Your task to perform on an android device: Open the calendar app, open the side menu, and click the "Day" option Image 0: 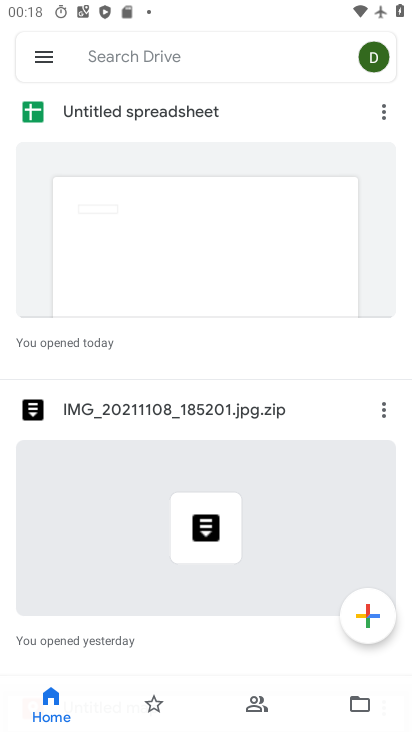
Step 0: press home button
Your task to perform on an android device: Open the calendar app, open the side menu, and click the "Day" option Image 1: 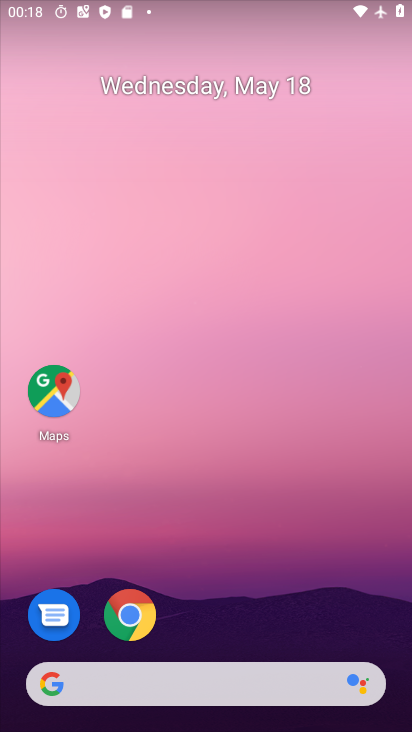
Step 1: drag from (207, 618) to (239, 150)
Your task to perform on an android device: Open the calendar app, open the side menu, and click the "Day" option Image 2: 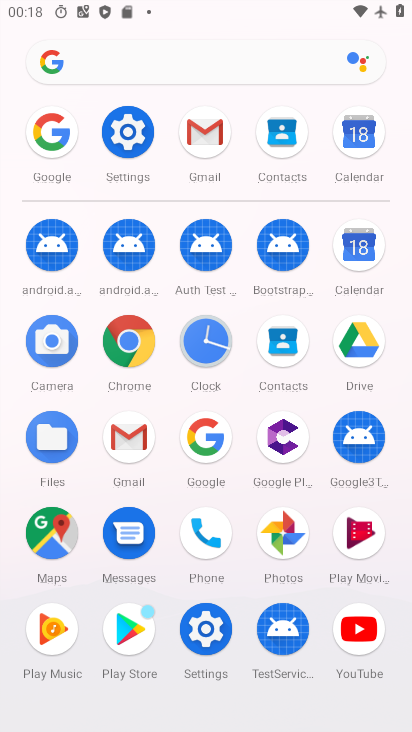
Step 2: click (340, 158)
Your task to perform on an android device: Open the calendar app, open the side menu, and click the "Day" option Image 3: 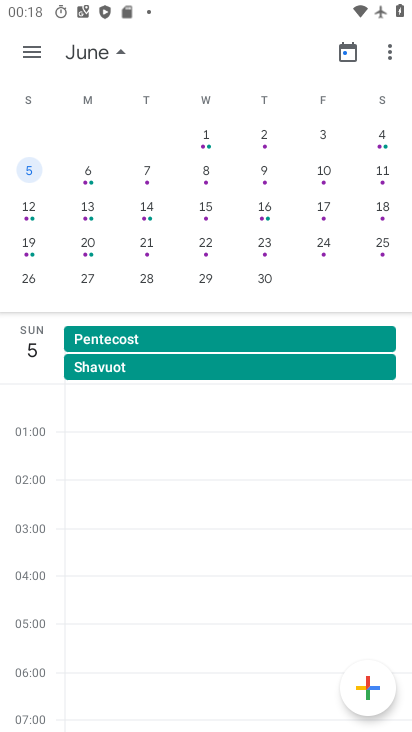
Step 3: click (25, 56)
Your task to perform on an android device: Open the calendar app, open the side menu, and click the "Day" option Image 4: 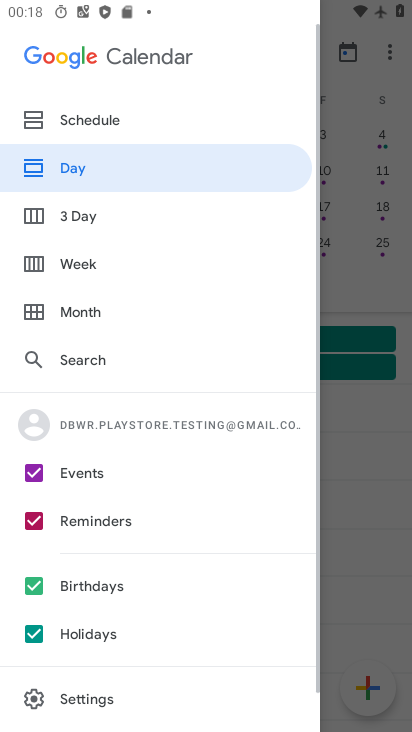
Step 4: click (119, 165)
Your task to perform on an android device: Open the calendar app, open the side menu, and click the "Day" option Image 5: 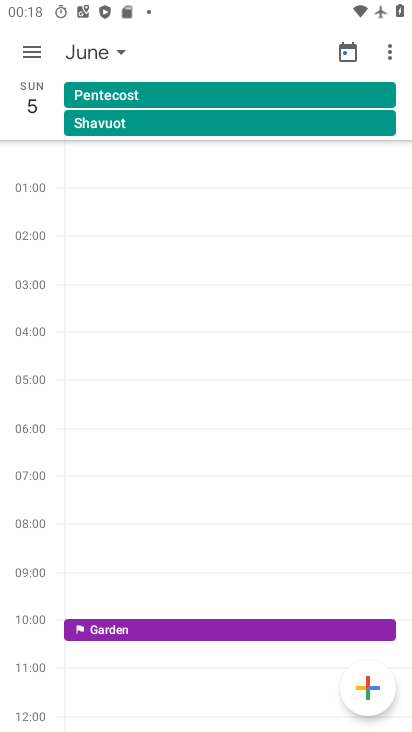
Step 5: task complete